Your task to perform on an android device: check battery use Image 0: 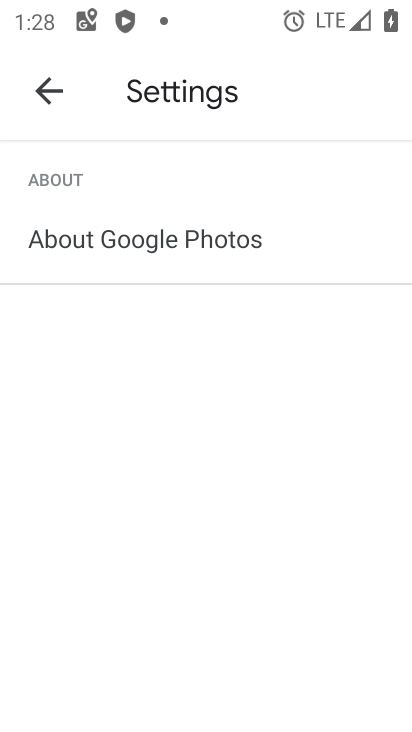
Step 0: press home button
Your task to perform on an android device: check battery use Image 1: 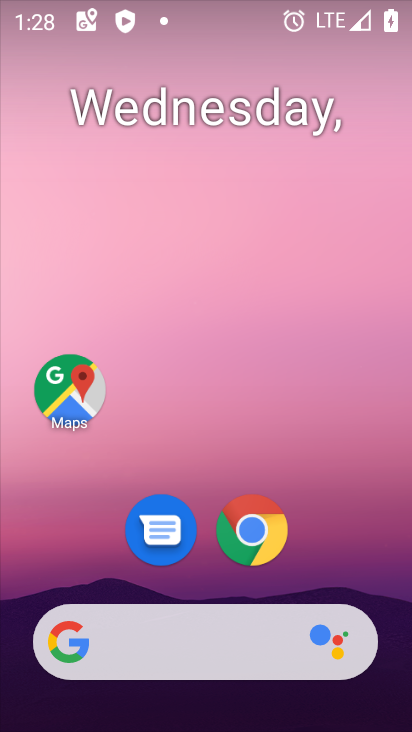
Step 1: drag from (364, 546) to (359, 177)
Your task to perform on an android device: check battery use Image 2: 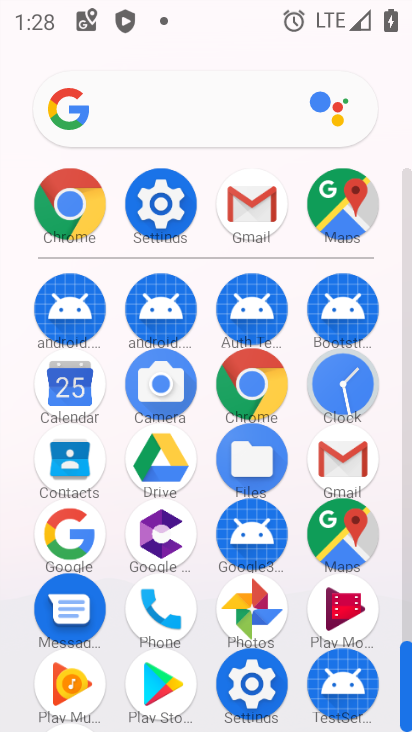
Step 2: click (176, 212)
Your task to perform on an android device: check battery use Image 3: 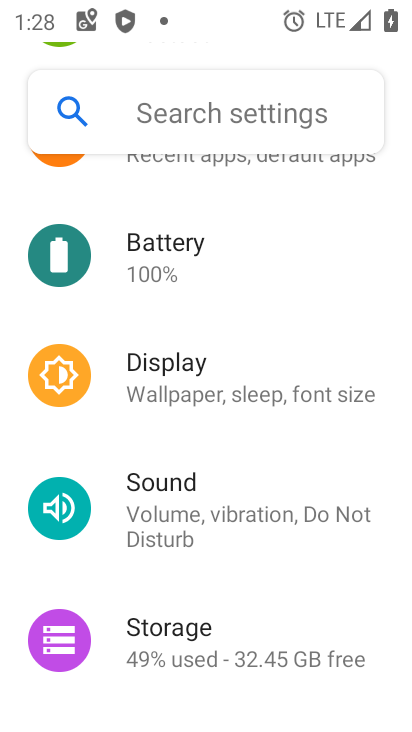
Step 3: click (193, 288)
Your task to perform on an android device: check battery use Image 4: 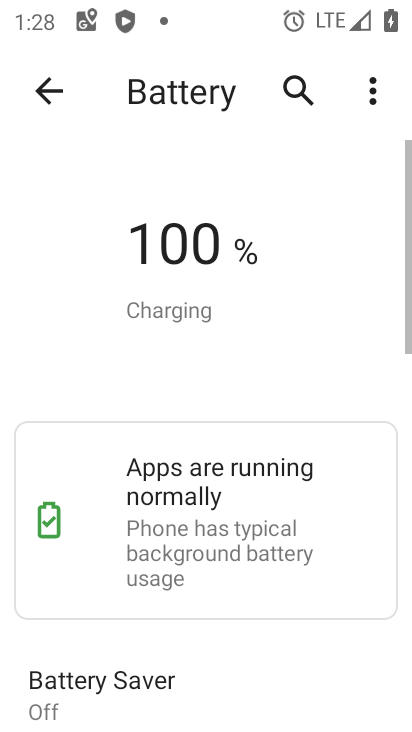
Step 4: drag from (131, 586) to (275, 181)
Your task to perform on an android device: check battery use Image 5: 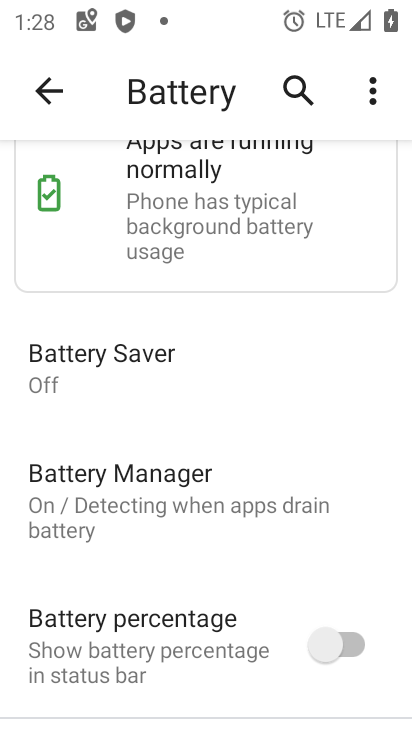
Step 5: click (378, 87)
Your task to perform on an android device: check battery use Image 6: 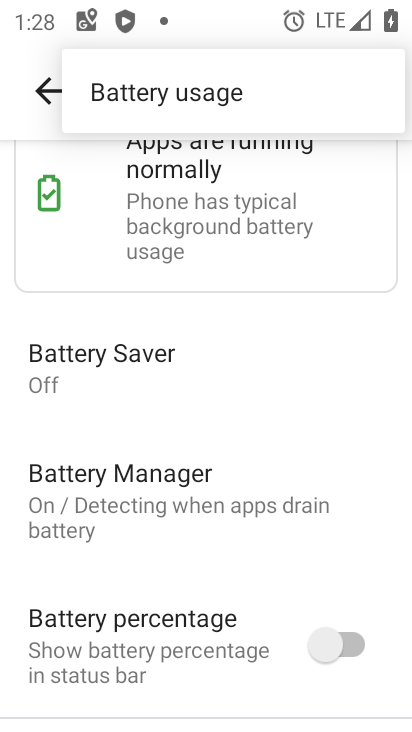
Step 6: click (269, 98)
Your task to perform on an android device: check battery use Image 7: 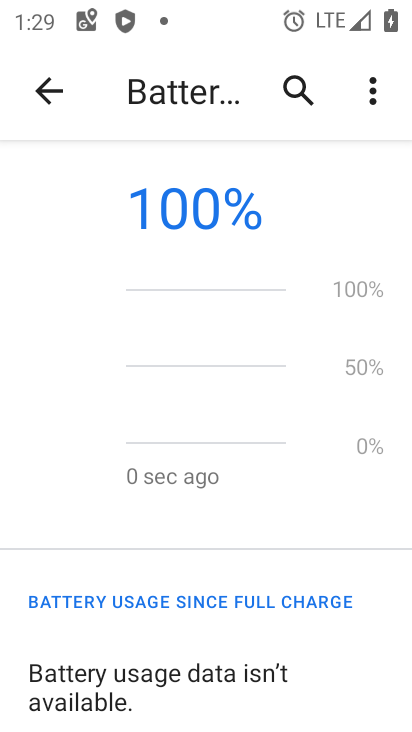
Step 7: task complete